Your task to perform on an android device: install app "Life360: Find Family & Friends" Image 0: 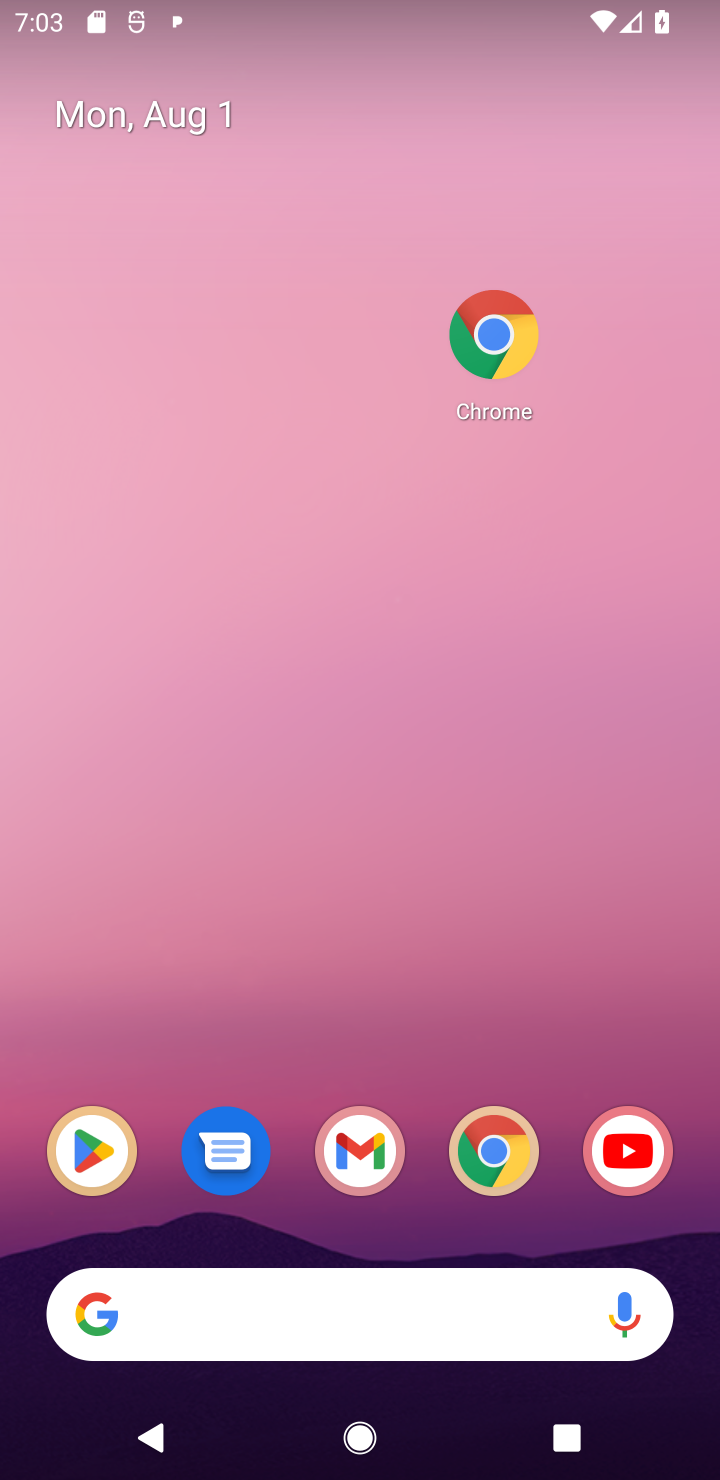
Step 0: click (86, 1154)
Your task to perform on an android device: install app "Life360: Find Family & Friends" Image 1: 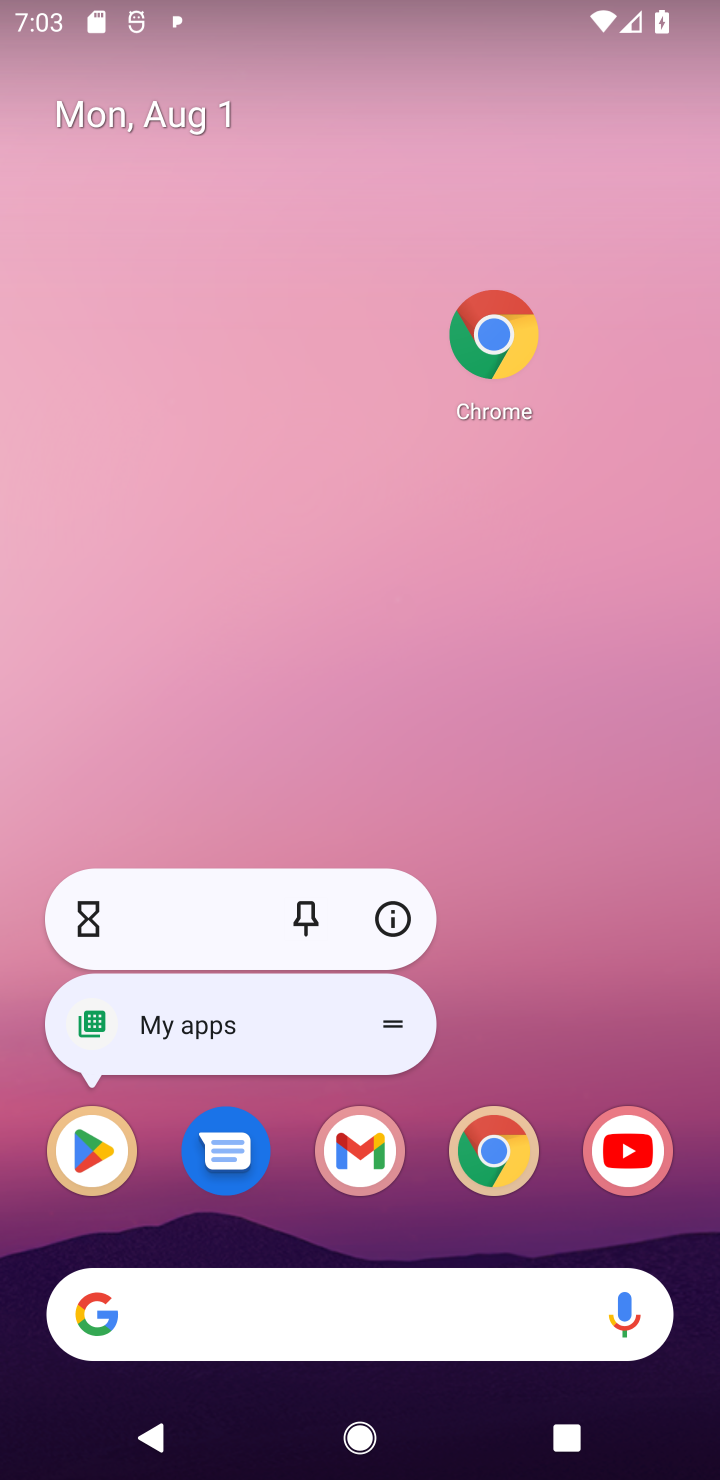
Step 1: click (84, 1165)
Your task to perform on an android device: install app "Life360: Find Family & Friends" Image 2: 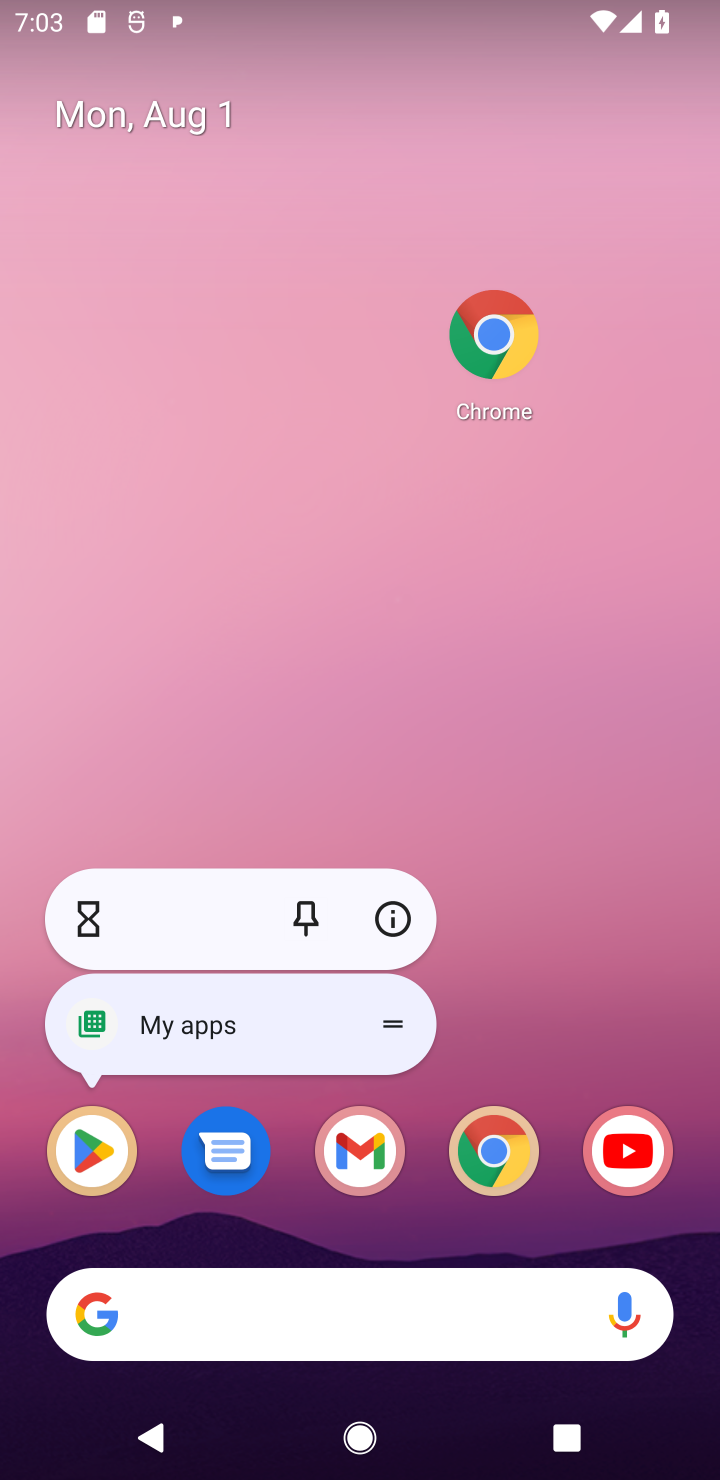
Step 2: click (84, 1165)
Your task to perform on an android device: install app "Life360: Find Family & Friends" Image 3: 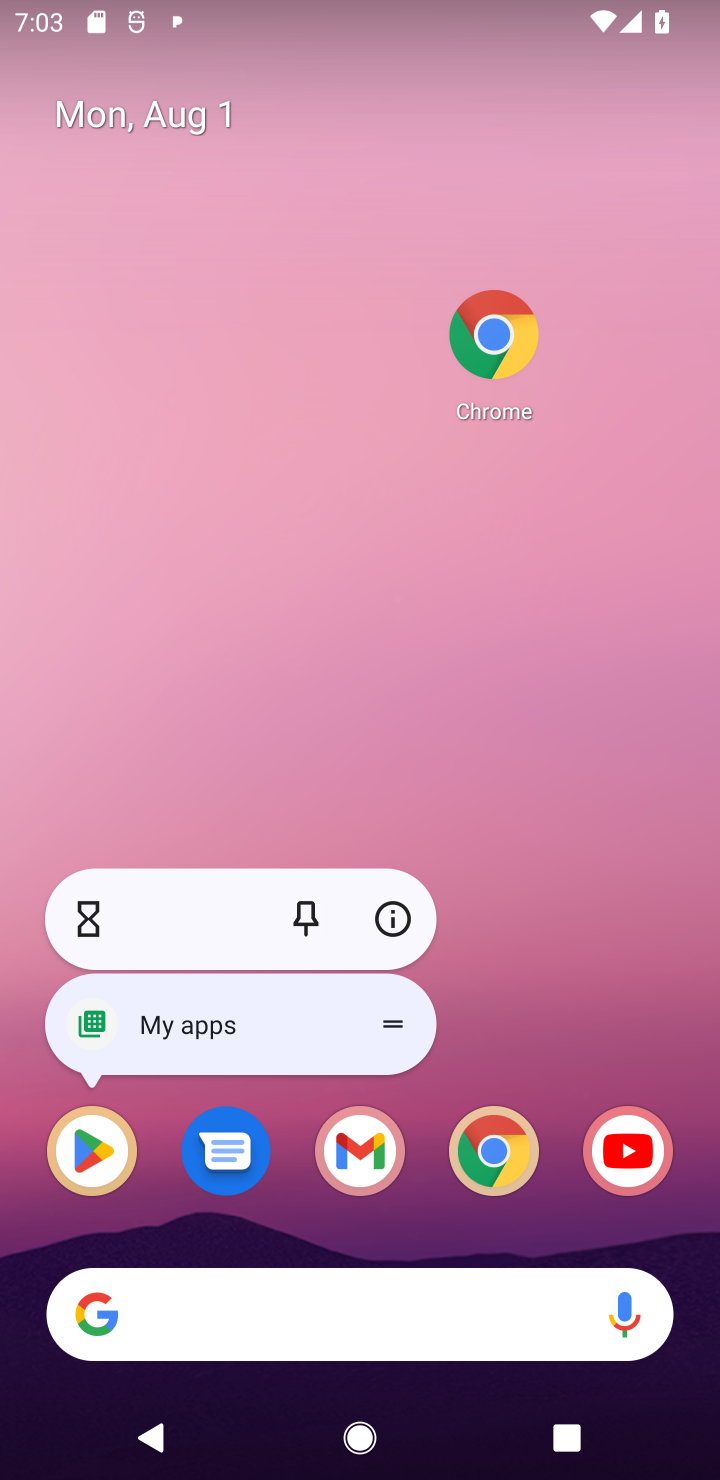
Step 3: click (84, 1165)
Your task to perform on an android device: install app "Life360: Find Family & Friends" Image 4: 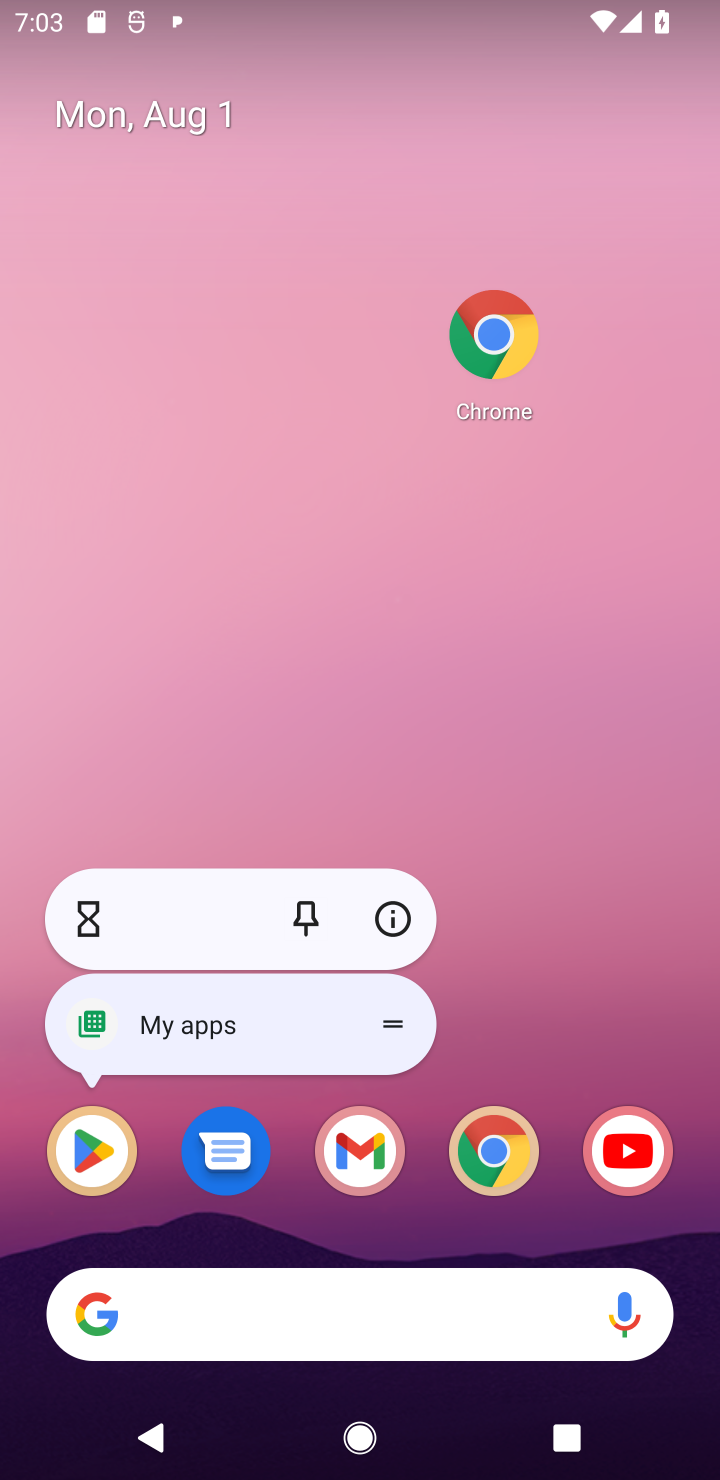
Step 4: click (84, 1165)
Your task to perform on an android device: install app "Life360: Find Family & Friends" Image 5: 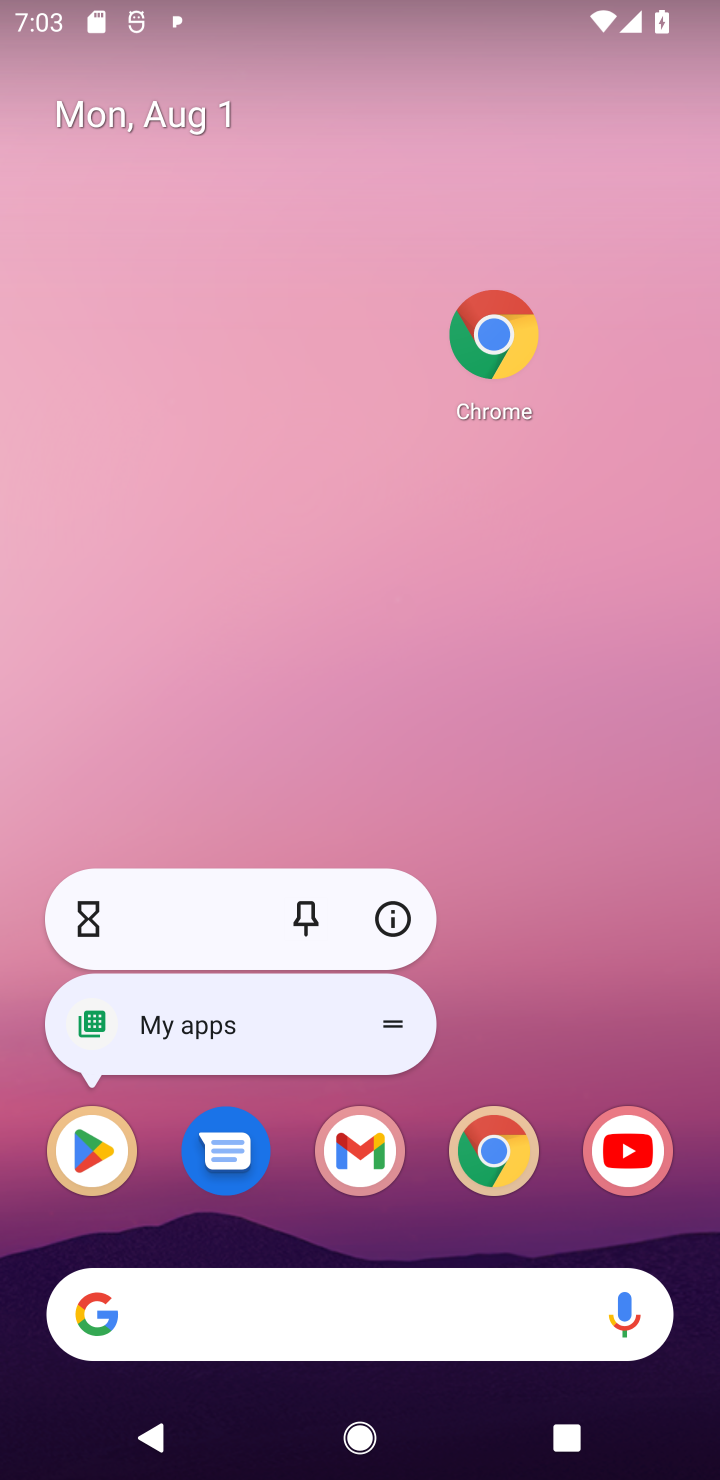
Step 5: click (84, 1165)
Your task to perform on an android device: install app "Life360: Find Family & Friends" Image 6: 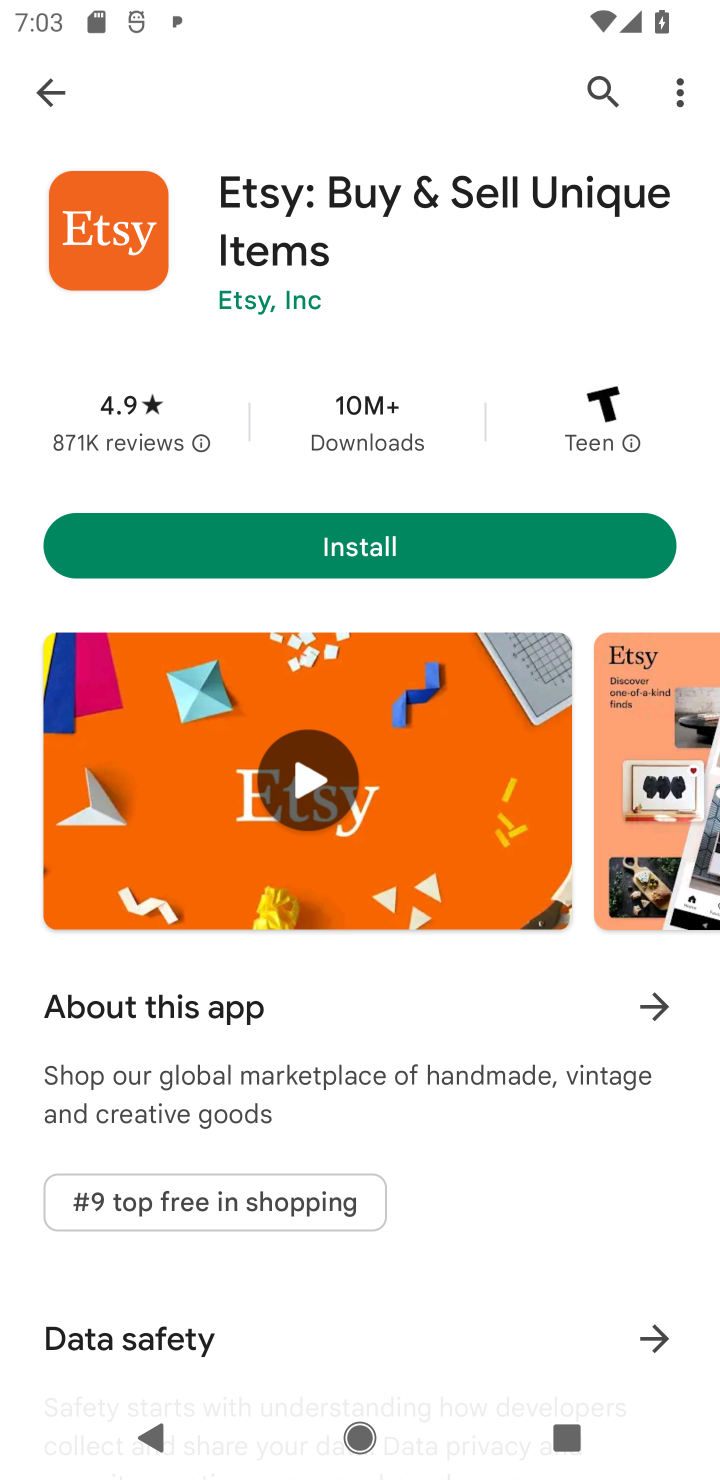
Step 6: click (613, 97)
Your task to perform on an android device: install app "Life360: Find Family & Friends" Image 7: 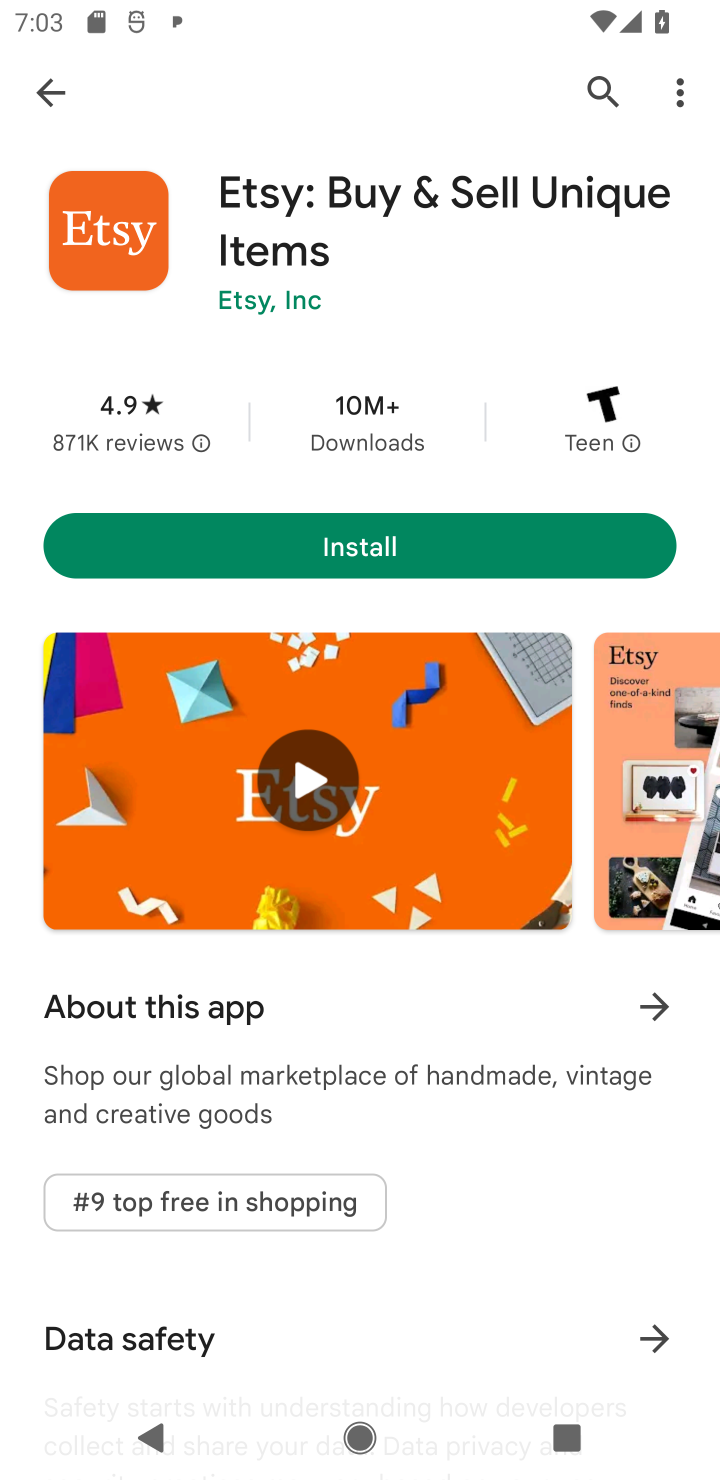
Step 7: click (595, 90)
Your task to perform on an android device: install app "Life360: Find Family & Friends" Image 8: 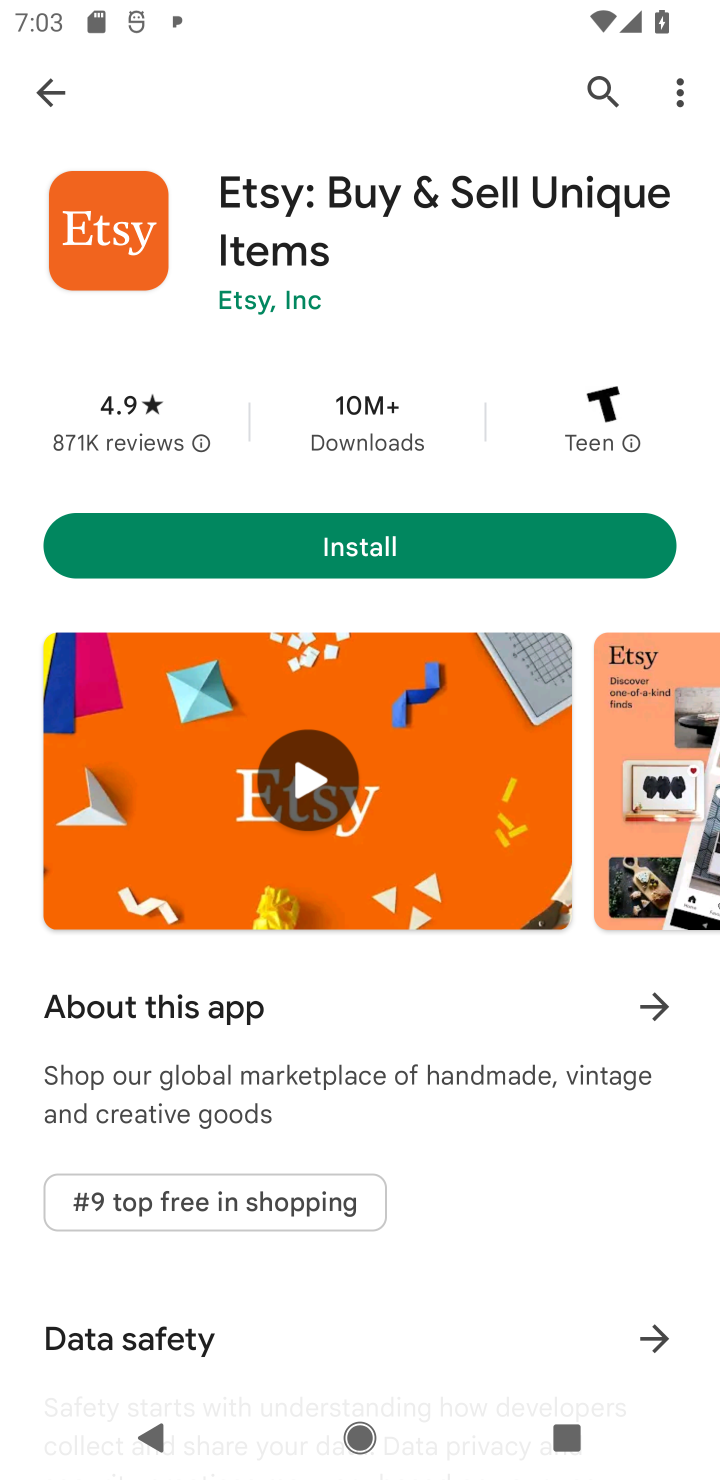
Step 8: click (608, 80)
Your task to perform on an android device: install app "Life360: Find Family & Friends" Image 9: 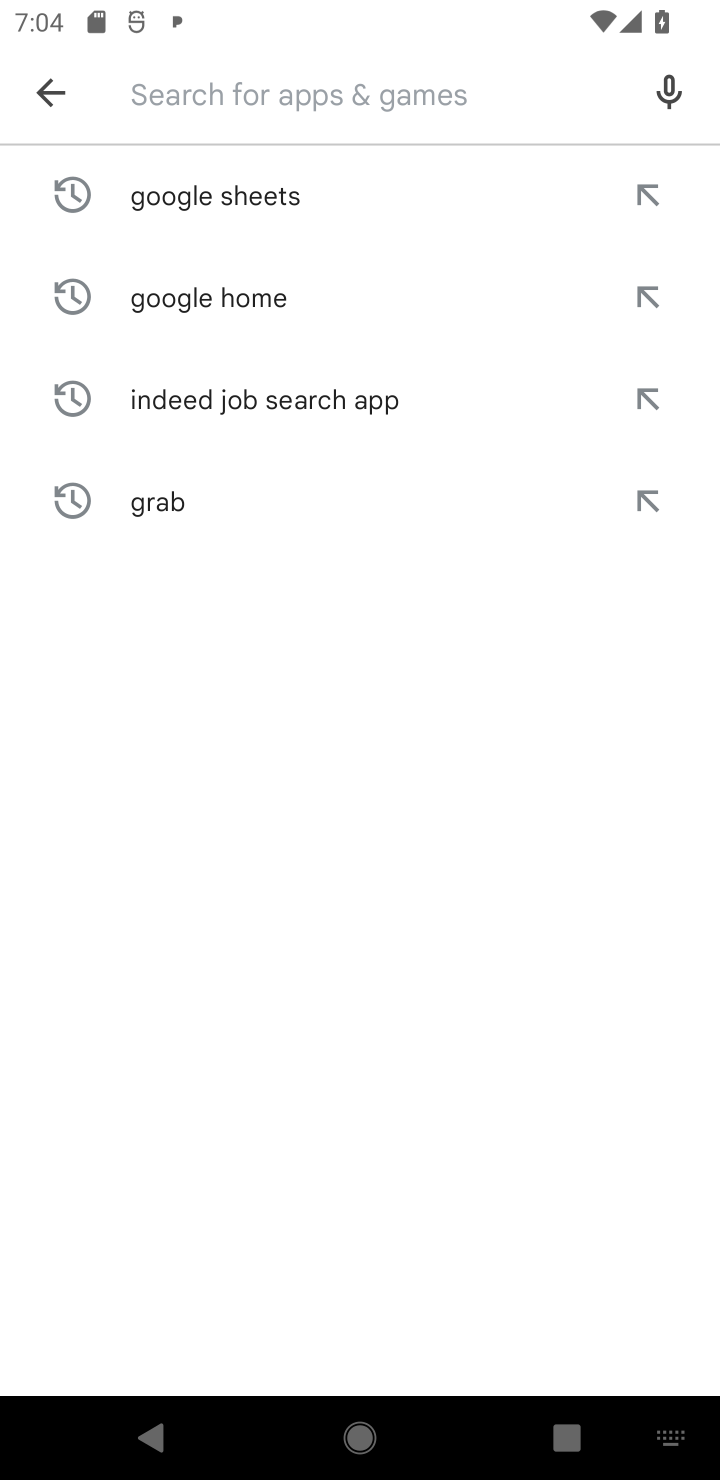
Step 9: type "Life360: Find Family & Friends"
Your task to perform on an android device: install app "Life360: Find Family & Friends" Image 10: 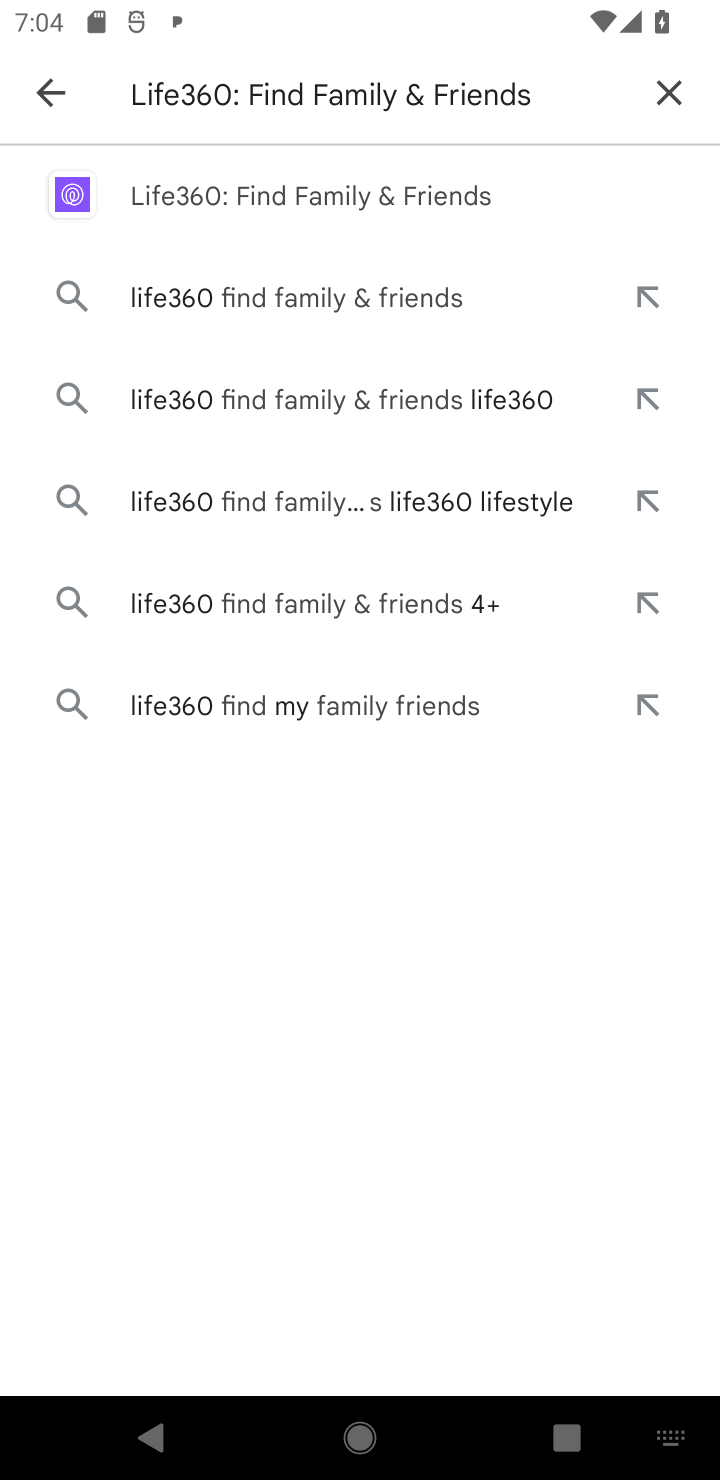
Step 10: click (331, 208)
Your task to perform on an android device: install app "Life360: Find Family & Friends" Image 11: 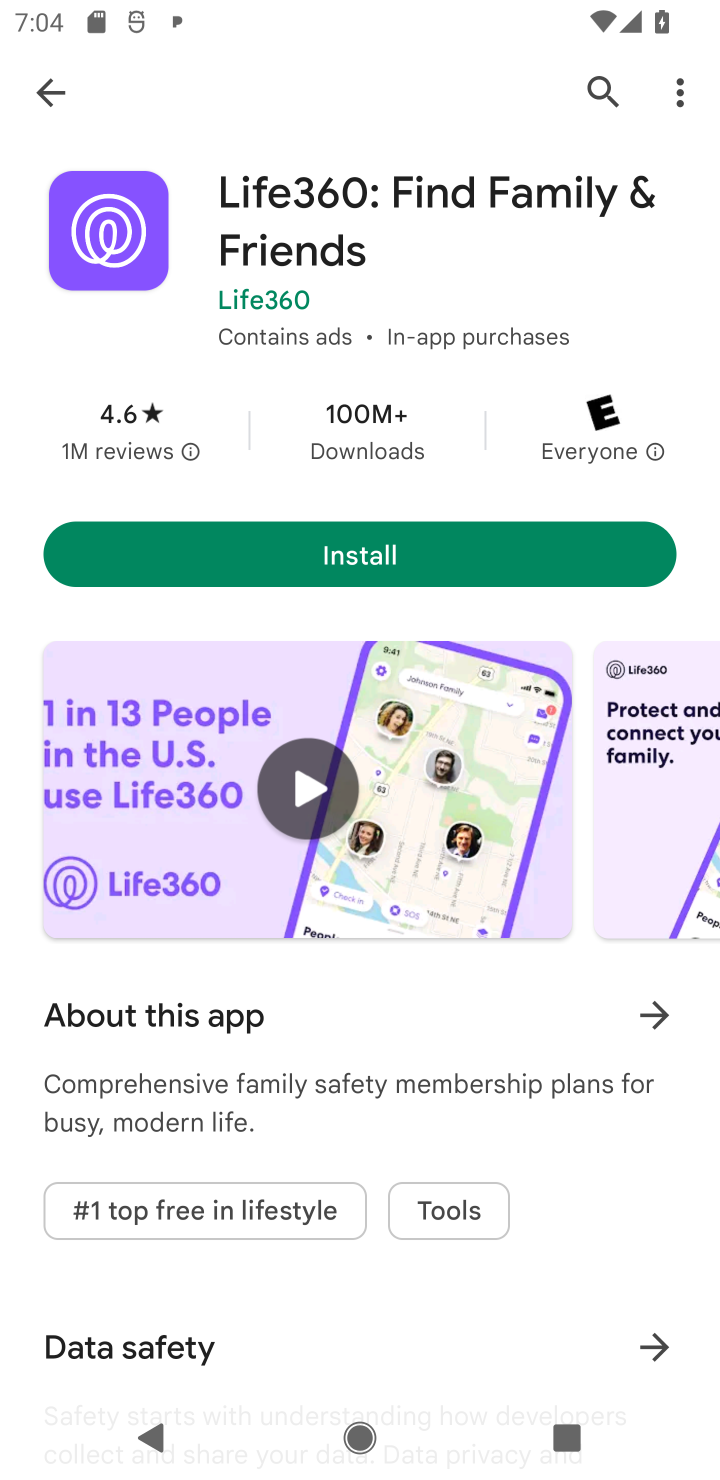
Step 11: click (318, 556)
Your task to perform on an android device: install app "Life360: Find Family & Friends" Image 12: 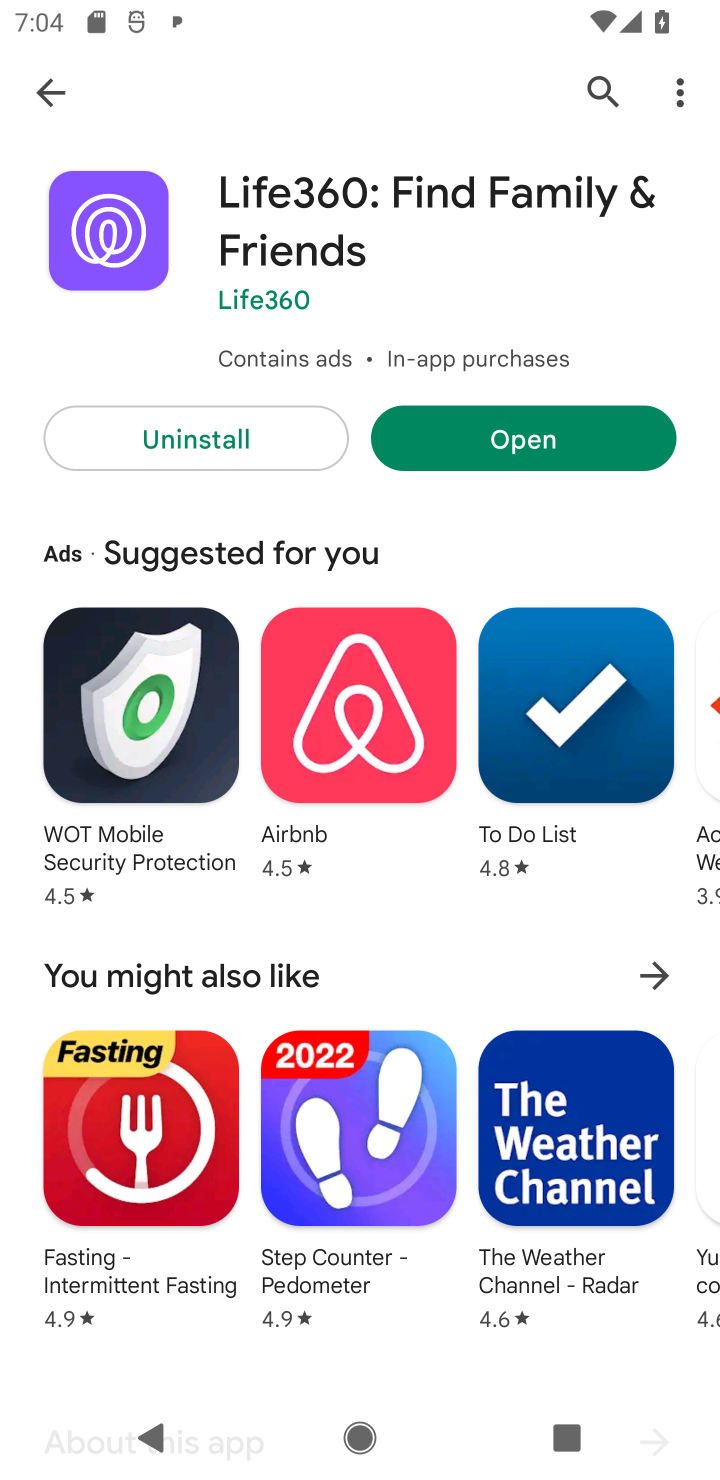
Step 12: task complete